Your task to perform on an android device: Go to settings Image 0: 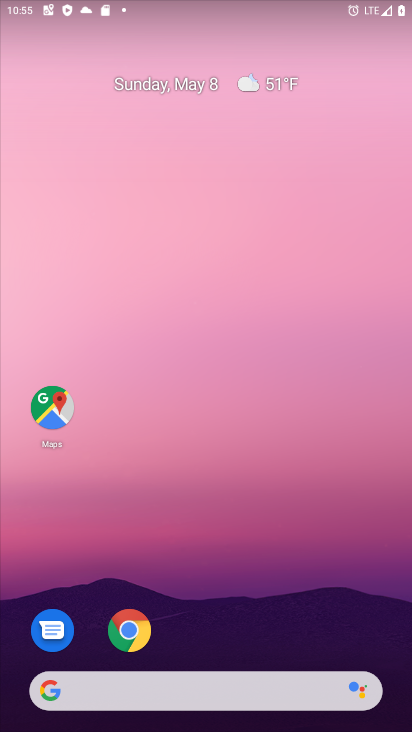
Step 0: drag from (372, 584) to (211, 55)
Your task to perform on an android device: Go to settings Image 1: 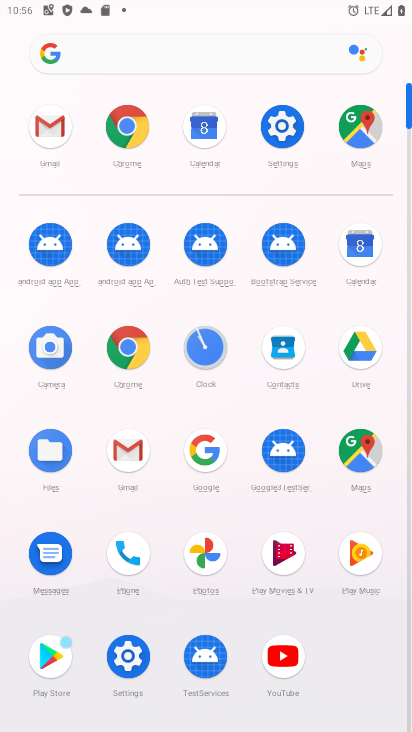
Step 1: click (127, 658)
Your task to perform on an android device: Go to settings Image 2: 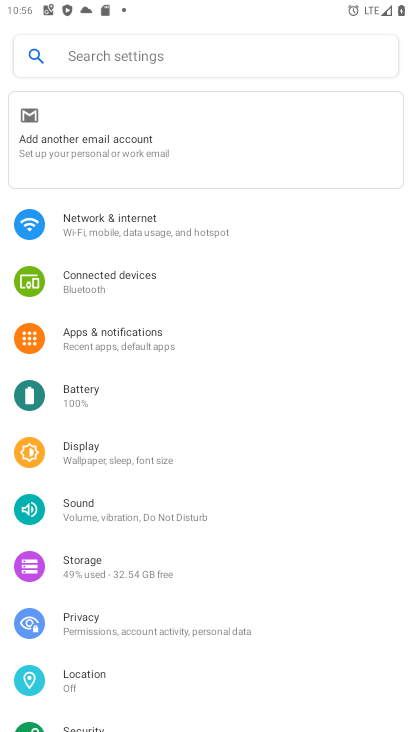
Step 2: task complete